Your task to perform on an android device: Go to Yahoo.com Image 0: 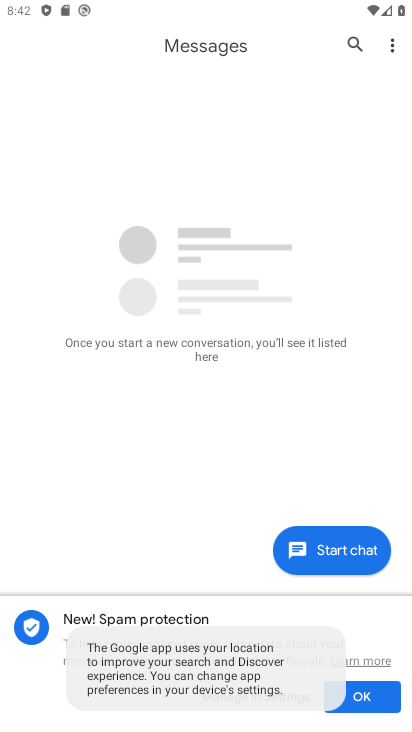
Step 0: press home button
Your task to perform on an android device: Go to Yahoo.com Image 1: 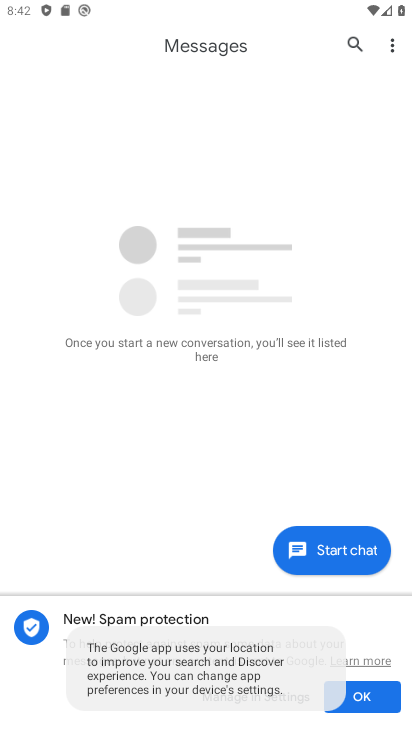
Step 1: press home button
Your task to perform on an android device: Go to Yahoo.com Image 2: 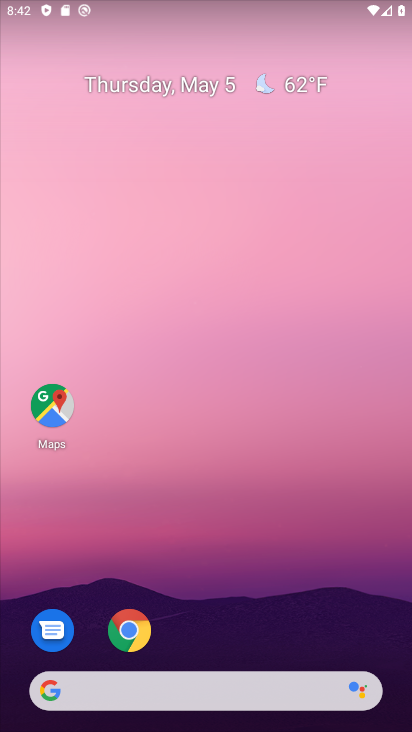
Step 2: click (125, 620)
Your task to perform on an android device: Go to Yahoo.com Image 3: 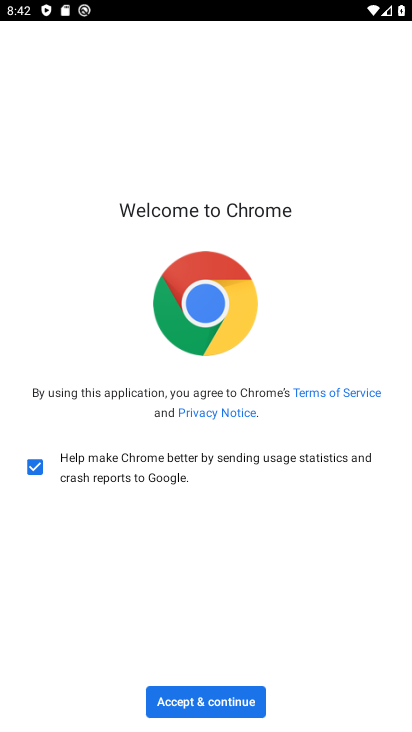
Step 3: click (199, 698)
Your task to perform on an android device: Go to Yahoo.com Image 4: 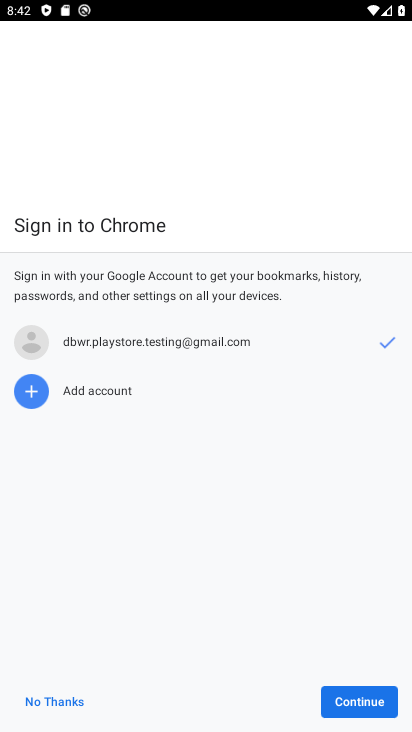
Step 4: click (376, 697)
Your task to perform on an android device: Go to Yahoo.com Image 5: 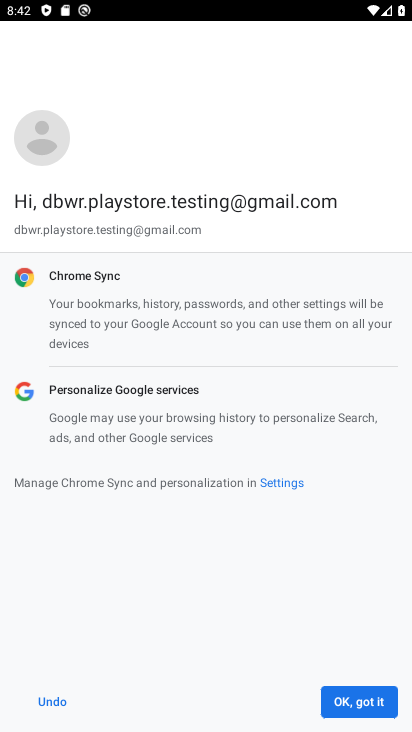
Step 5: click (359, 716)
Your task to perform on an android device: Go to Yahoo.com Image 6: 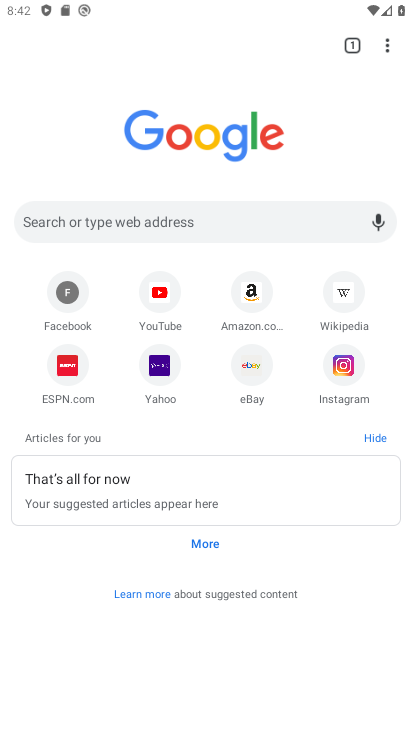
Step 6: click (169, 359)
Your task to perform on an android device: Go to Yahoo.com Image 7: 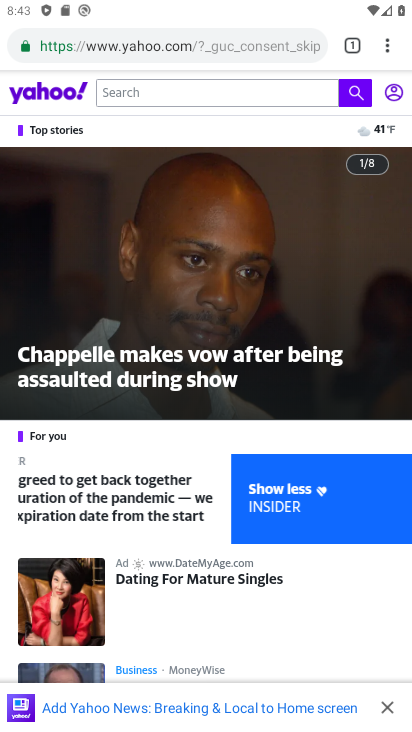
Step 7: task complete